Your task to perform on an android device: all mails in gmail Image 0: 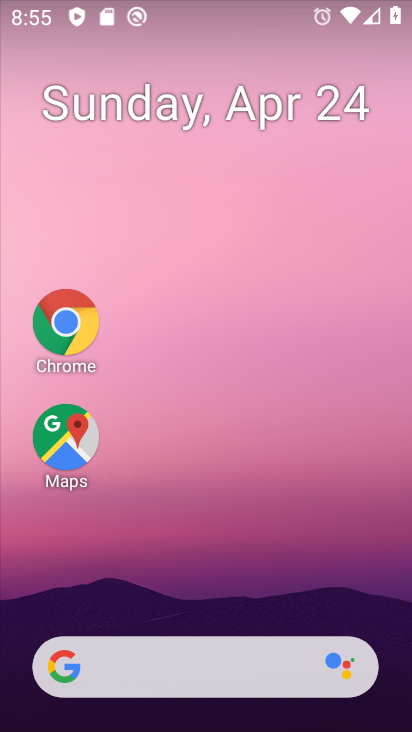
Step 0: drag from (210, 532) to (58, 4)
Your task to perform on an android device: all mails in gmail Image 1: 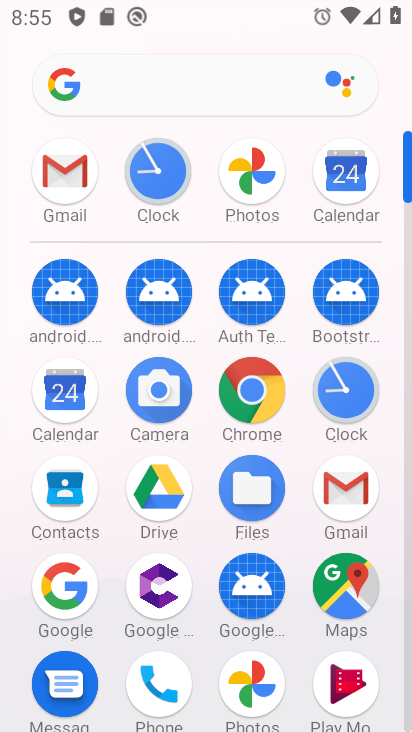
Step 1: click (60, 178)
Your task to perform on an android device: all mails in gmail Image 2: 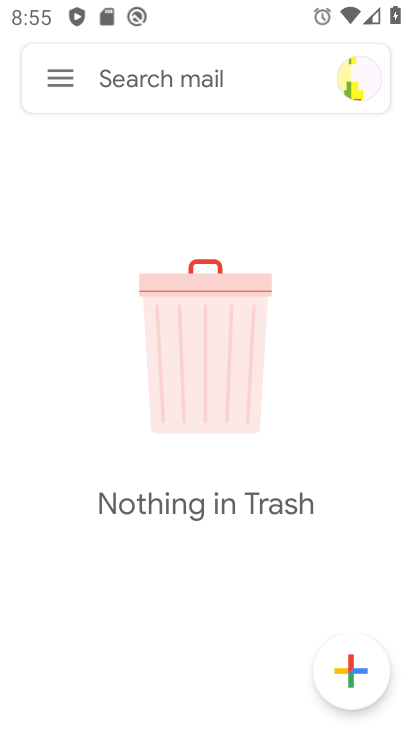
Step 2: click (57, 82)
Your task to perform on an android device: all mails in gmail Image 3: 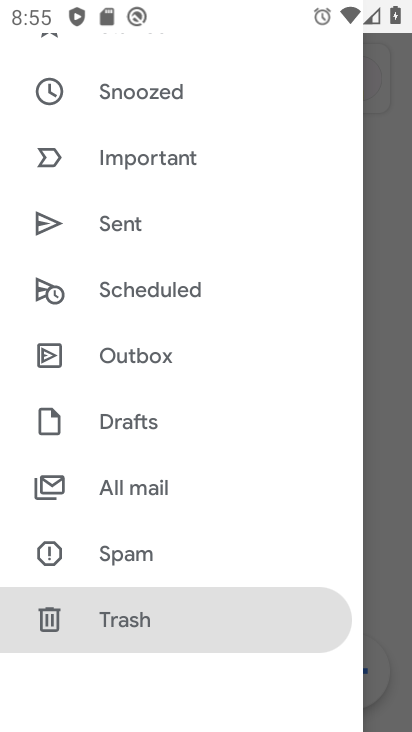
Step 3: click (142, 485)
Your task to perform on an android device: all mails in gmail Image 4: 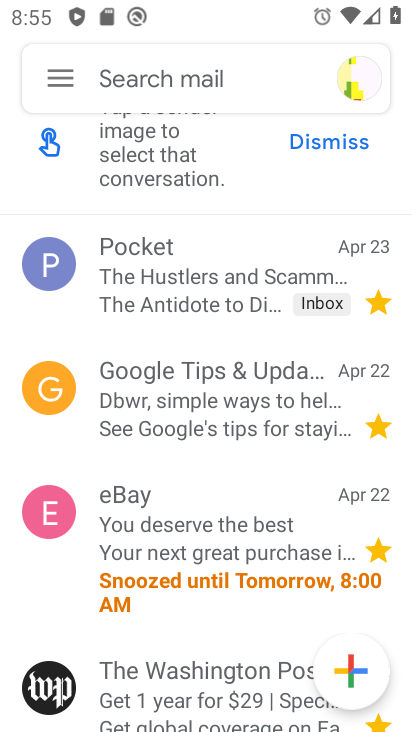
Step 4: task complete